Your task to perform on an android device: toggle airplane mode Image 0: 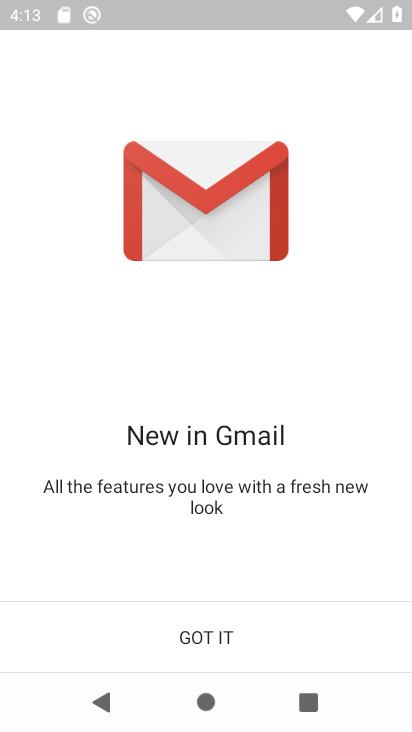
Step 0: press home button
Your task to perform on an android device: toggle airplane mode Image 1: 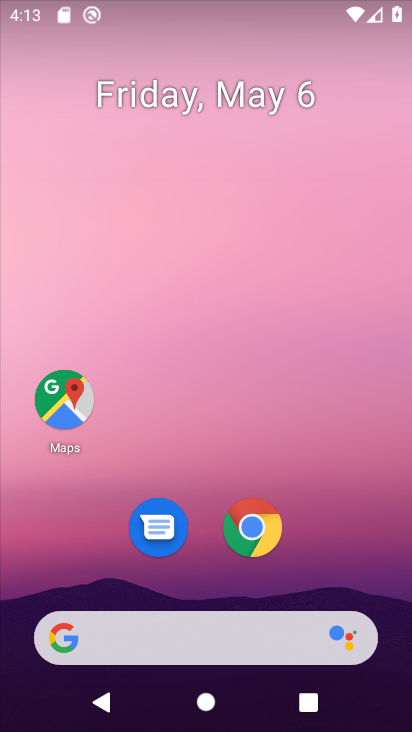
Step 1: drag from (315, 565) to (299, 53)
Your task to perform on an android device: toggle airplane mode Image 2: 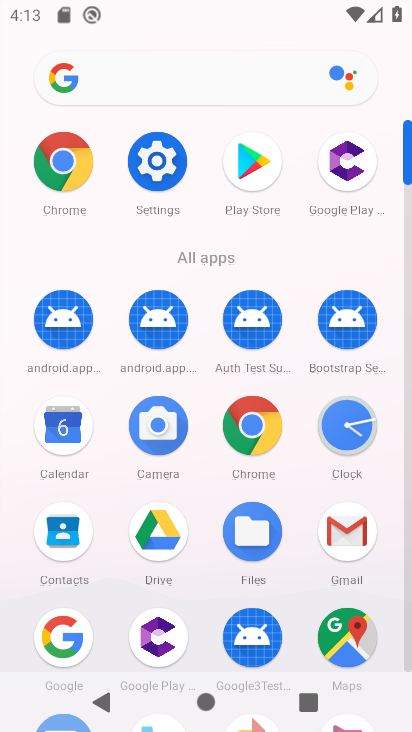
Step 2: click (163, 168)
Your task to perform on an android device: toggle airplane mode Image 3: 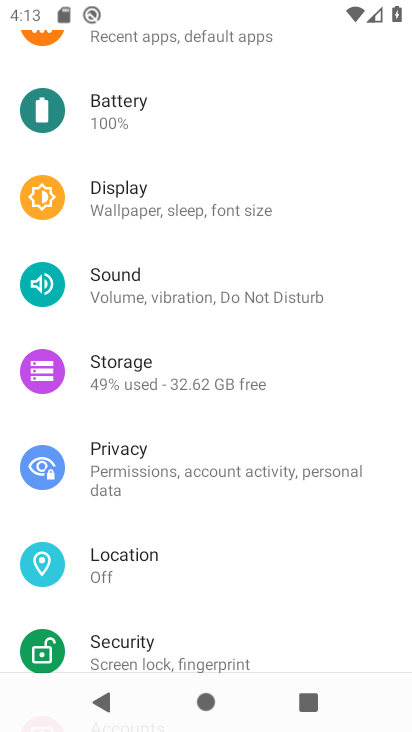
Step 3: drag from (168, 189) to (224, 354)
Your task to perform on an android device: toggle airplane mode Image 4: 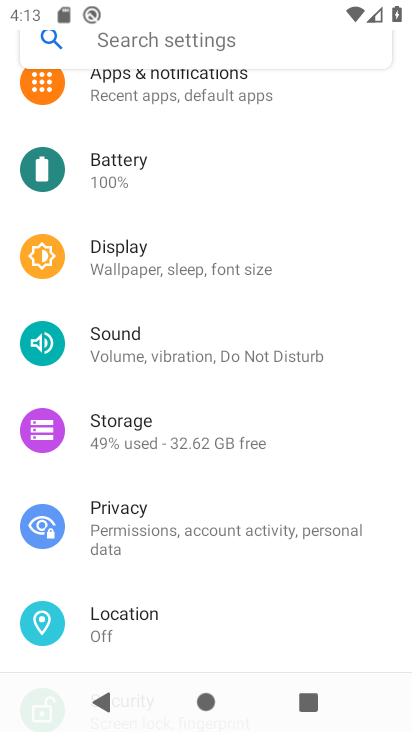
Step 4: drag from (195, 231) to (243, 405)
Your task to perform on an android device: toggle airplane mode Image 5: 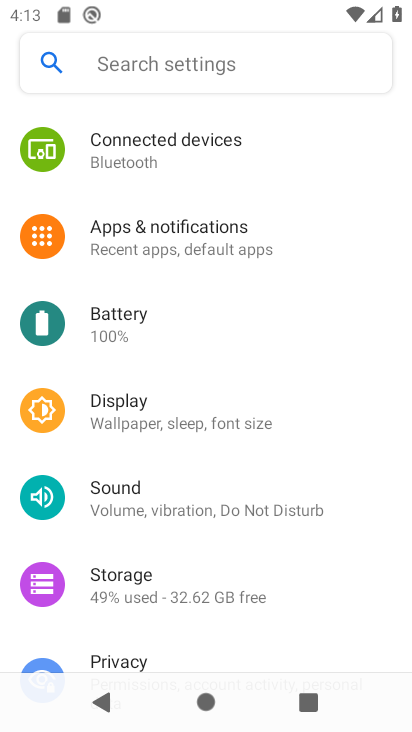
Step 5: drag from (177, 226) to (237, 432)
Your task to perform on an android device: toggle airplane mode Image 6: 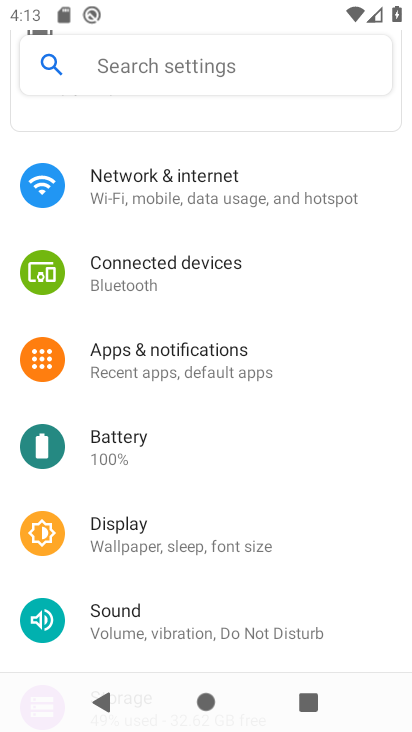
Step 6: click (212, 185)
Your task to perform on an android device: toggle airplane mode Image 7: 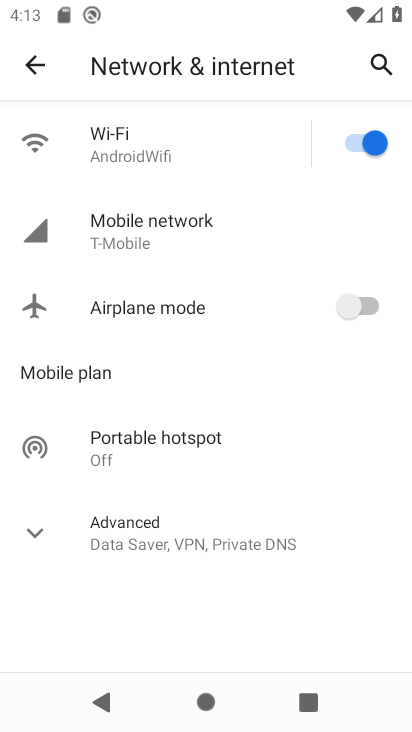
Step 7: click (356, 315)
Your task to perform on an android device: toggle airplane mode Image 8: 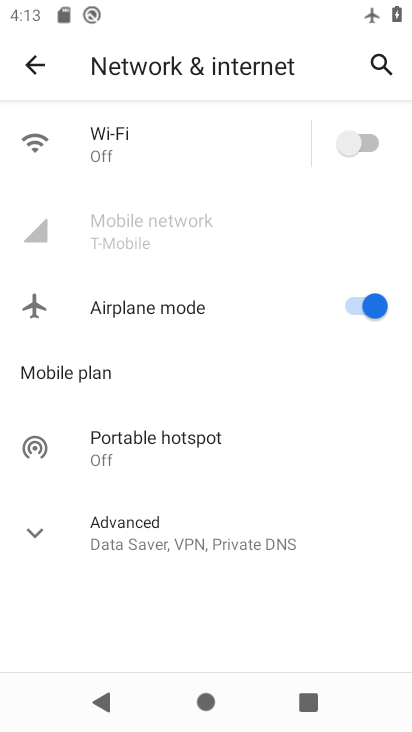
Step 8: task complete